Your task to perform on an android device: turn on javascript in the chrome app Image 0: 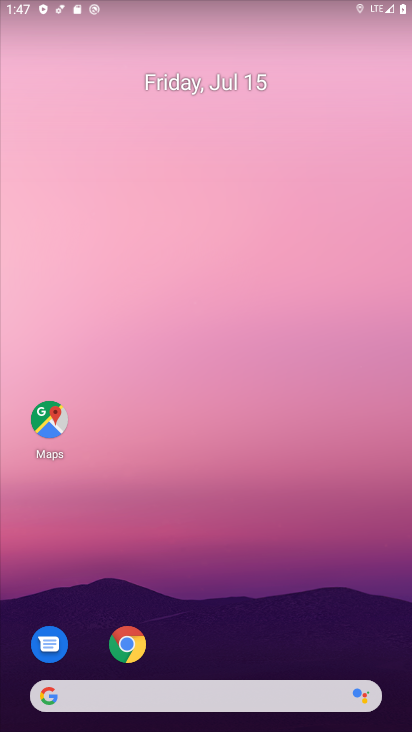
Step 0: drag from (386, 654) to (232, 78)
Your task to perform on an android device: turn on javascript in the chrome app Image 1: 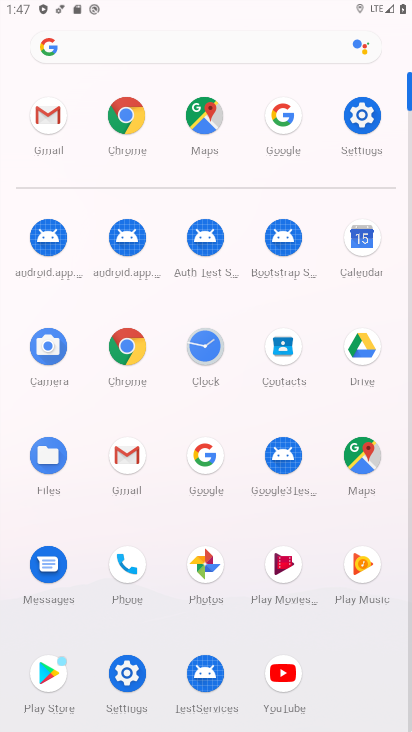
Step 1: click (121, 136)
Your task to perform on an android device: turn on javascript in the chrome app Image 2: 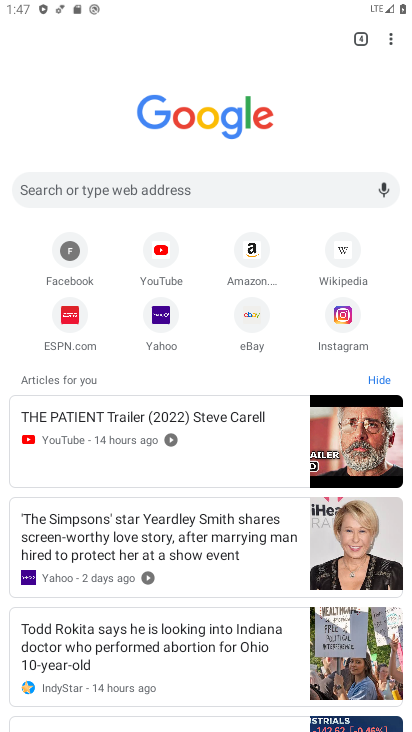
Step 2: click (388, 43)
Your task to perform on an android device: turn on javascript in the chrome app Image 3: 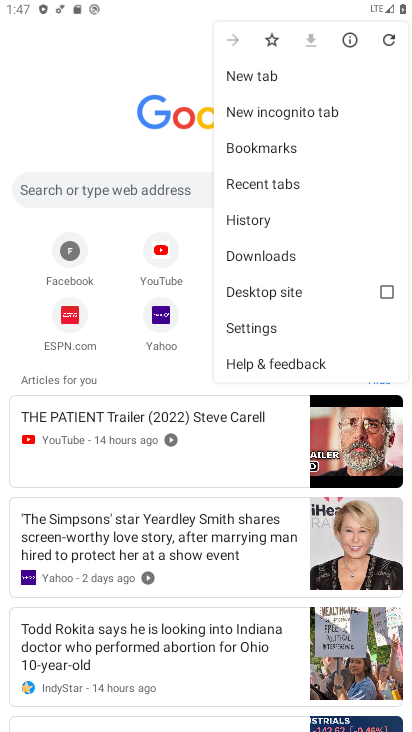
Step 3: click (251, 320)
Your task to perform on an android device: turn on javascript in the chrome app Image 4: 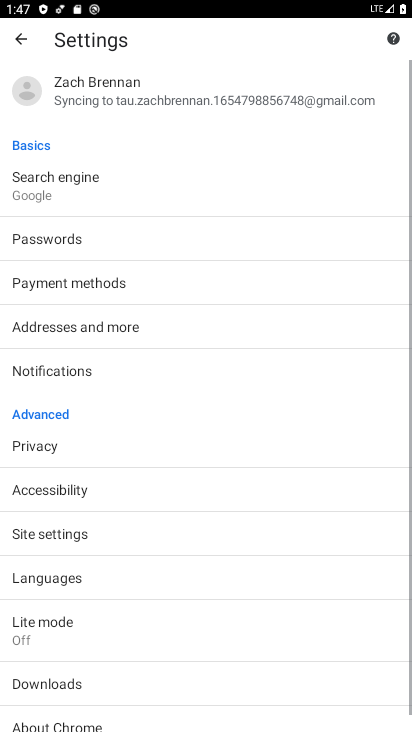
Step 4: click (89, 537)
Your task to perform on an android device: turn on javascript in the chrome app Image 5: 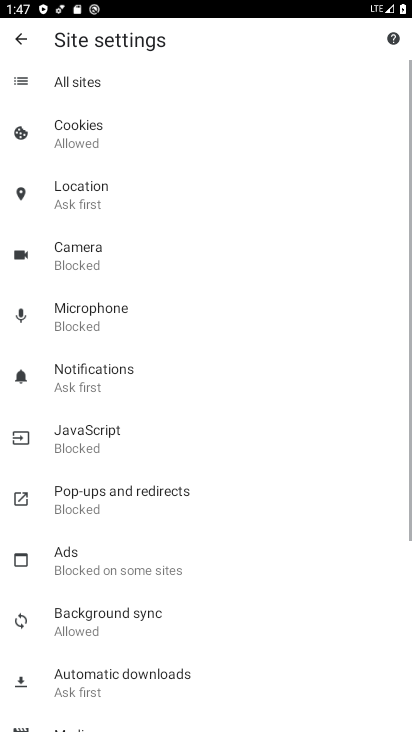
Step 5: click (119, 434)
Your task to perform on an android device: turn on javascript in the chrome app Image 6: 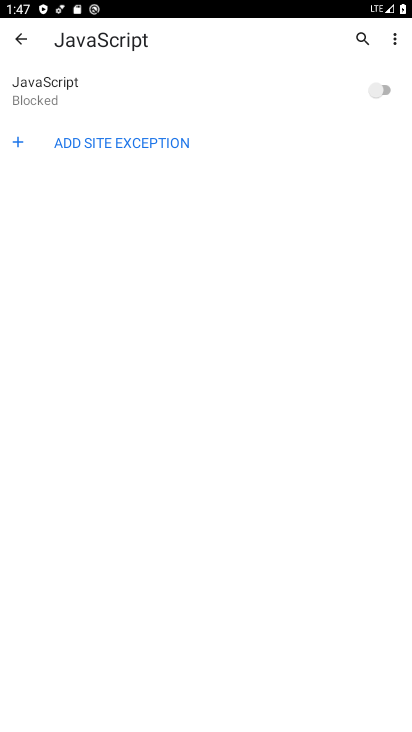
Step 6: click (392, 78)
Your task to perform on an android device: turn on javascript in the chrome app Image 7: 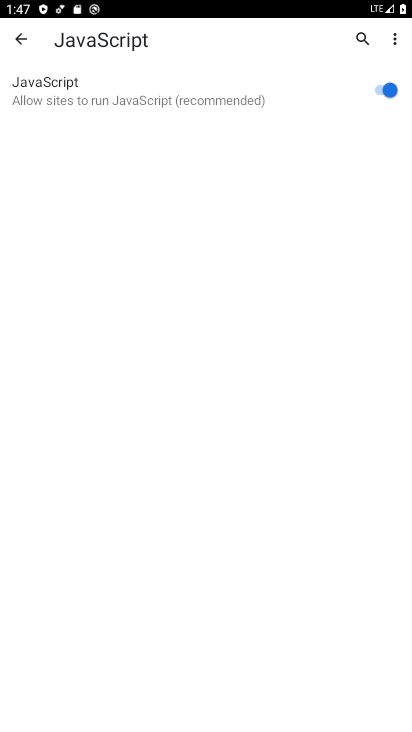
Step 7: task complete